Your task to perform on an android device: show emergency info Image 0: 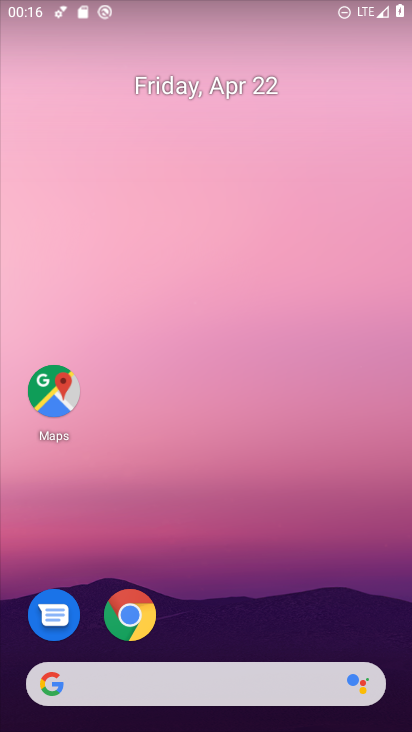
Step 0: drag from (224, 640) to (220, 2)
Your task to perform on an android device: show emergency info Image 1: 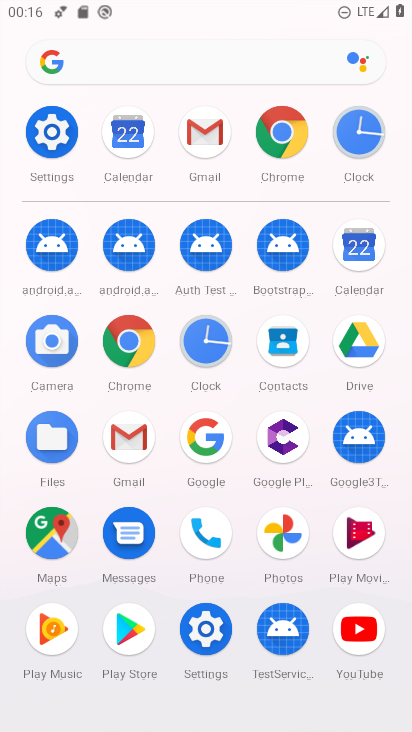
Step 1: click (204, 624)
Your task to perform on an android device: show emergency info Image 2: 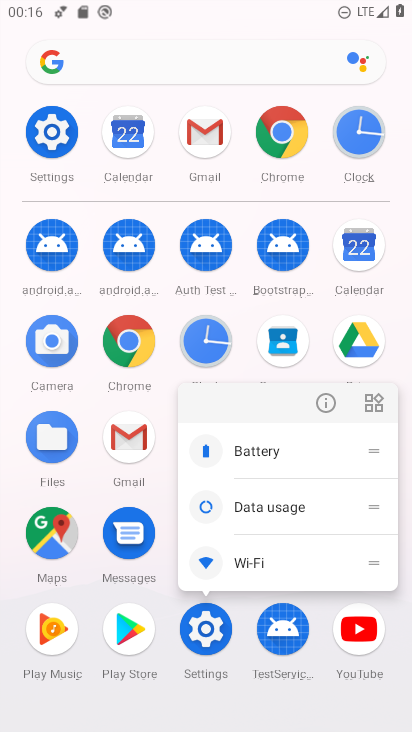
Step 2: click (204, 624)
Your task to perform on an android device: show emergency info Image 3: 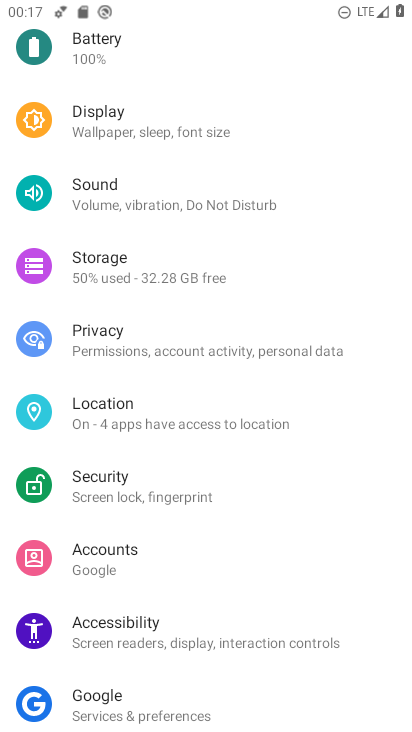
Step 3: drag from (191, 681) to (194, 225)
Your task to perform on an android device: show emergency info Image 4: 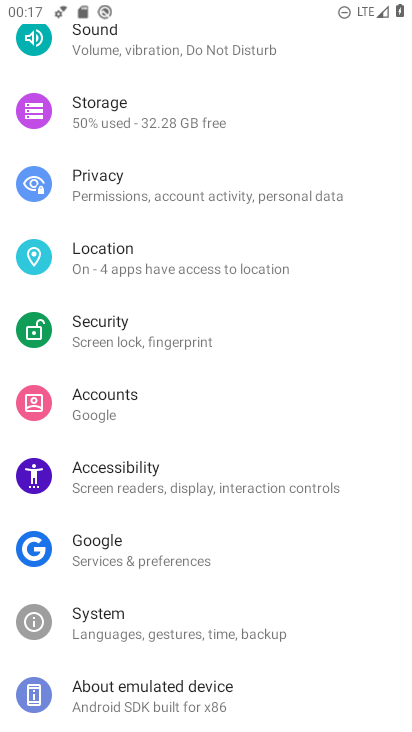
Step 4: click (243, 697)
Your task to perform on an android device: show emergency info Image 5: 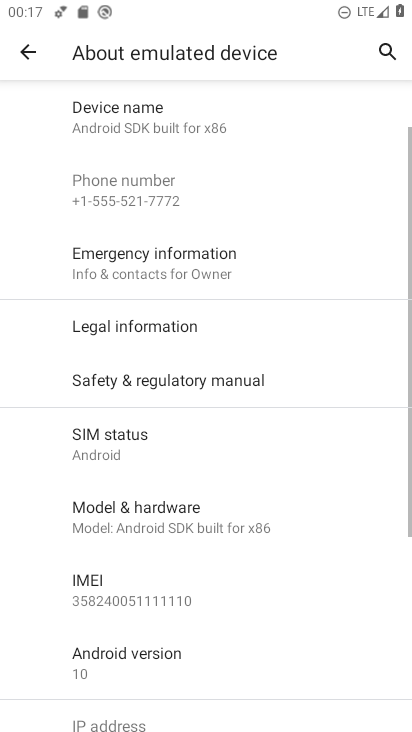
Step 5: click (244, 264)
Your task to perform on an android device: show emergency info Image 6: 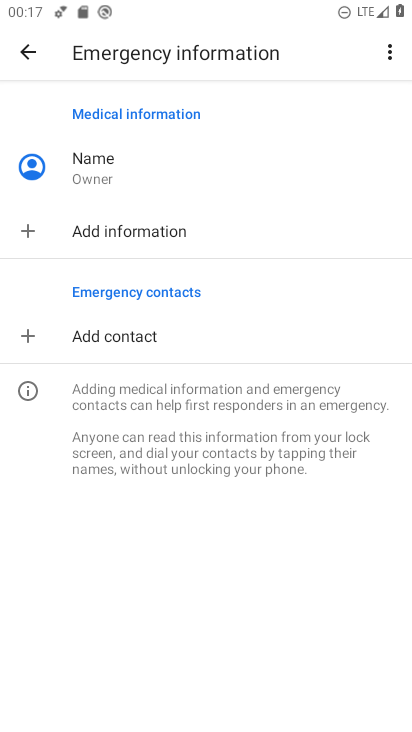
Step 6: task complete